Your task to perform on an android device: Go to Reddit.com Image 0: 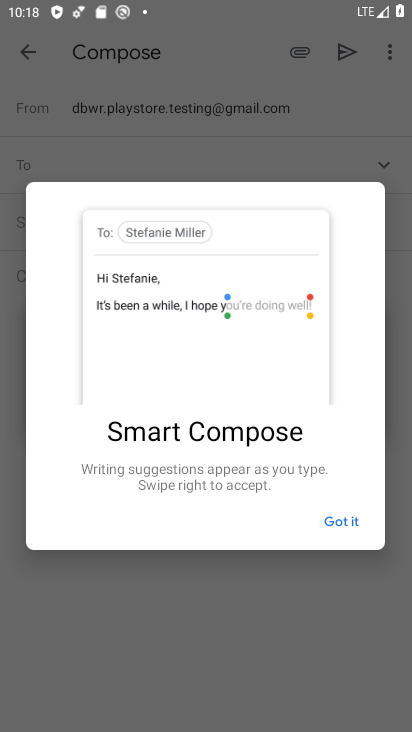
Step 0: press home button
Your task to perform on an android device: Go to Reddit.com Image 1: 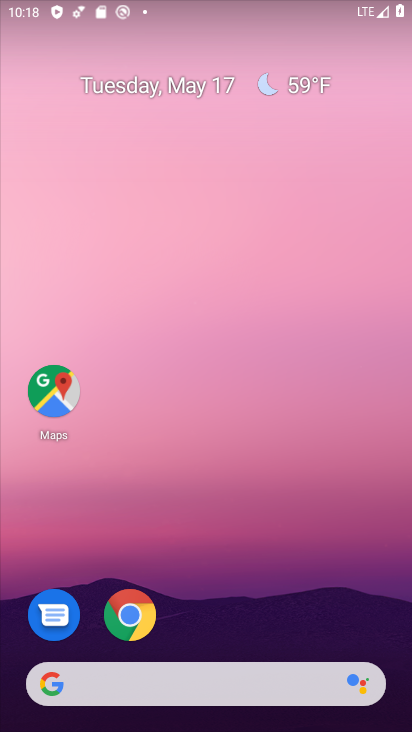
Step 1: click (138, 625)
Your task to perform on an android device: Go to Reddit.com Image 2: 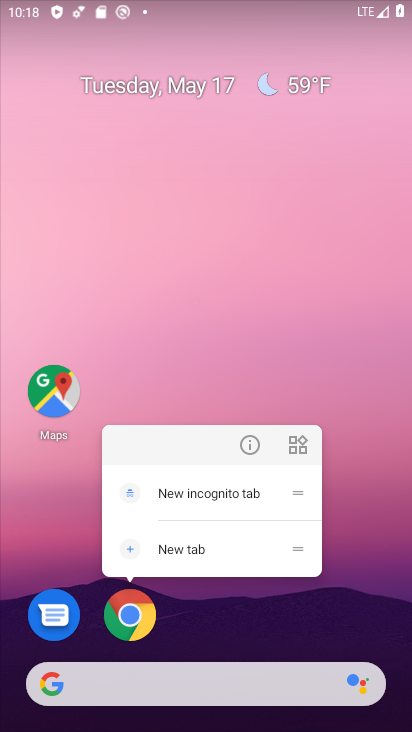
Step 2: click (138, 625)
Your task to perform on an android device: Go to Reddit.com Image 3: 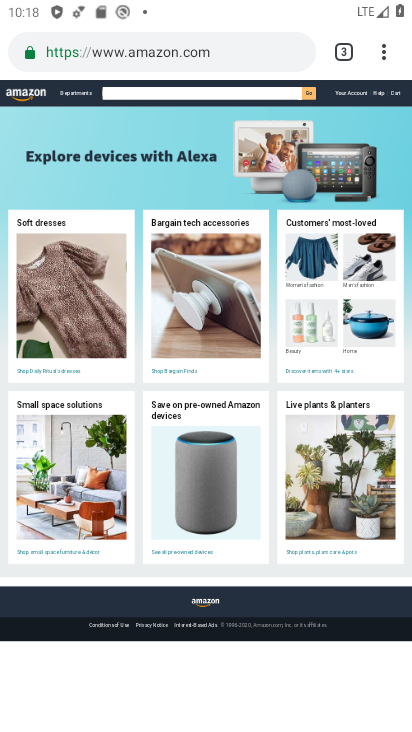
Step 3: drag from (387, 63) to (283, 113)
Your task to perform on an android device: Go to Reddit.com Image 4: 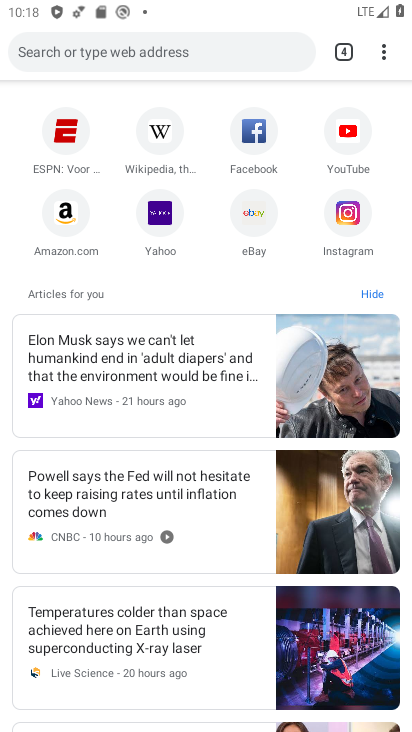
Step 4: click (180, 51)
Your task to perform on an android device: Go to Reddit.com Image 5: 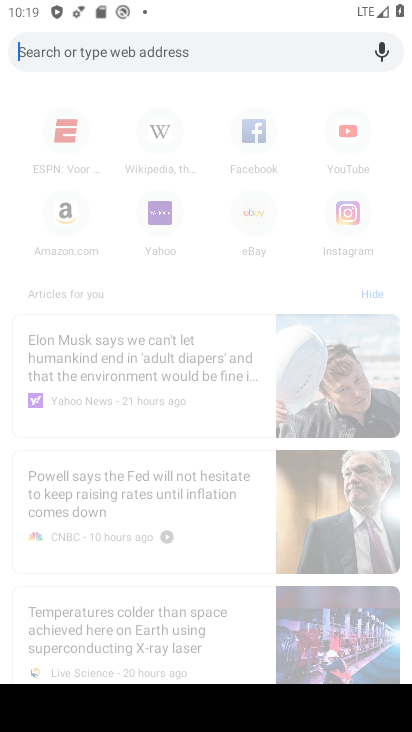
Step 5: type "reddit.com"
Your task to perform on an android device: Go to Reddit.com Image 6: 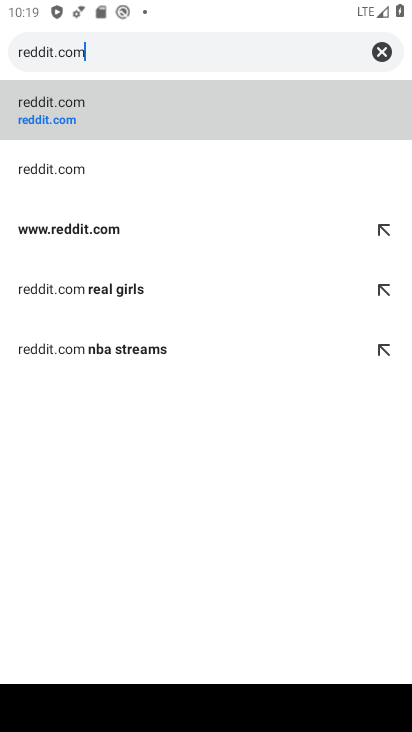
Step 6: click (69, 103)
Your task to perform on an android device: Go to Reddit.com Image 7: 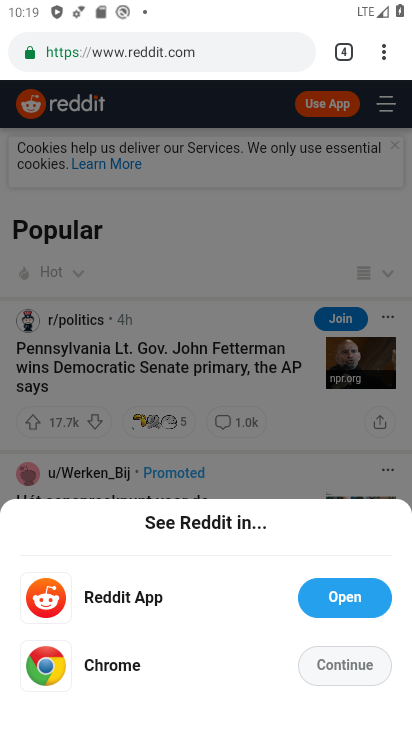
Step 7: task complete